Your task to perform on an android device: Open Chrome and go to the settings page Image 0: 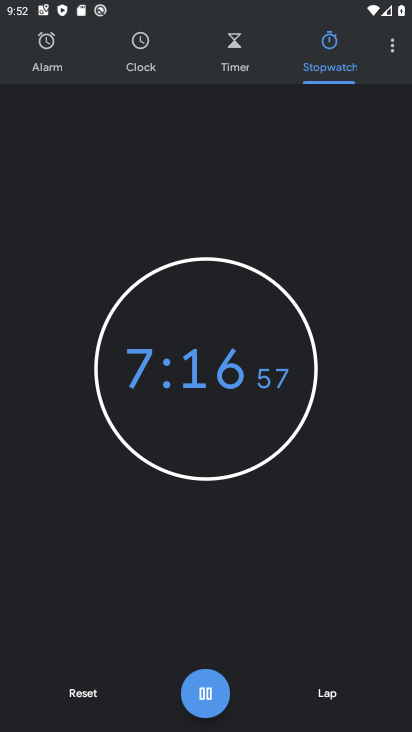
Step 0: press home button
Your task to perform on an android device: Open Chrome and go to the settings page Image 1: 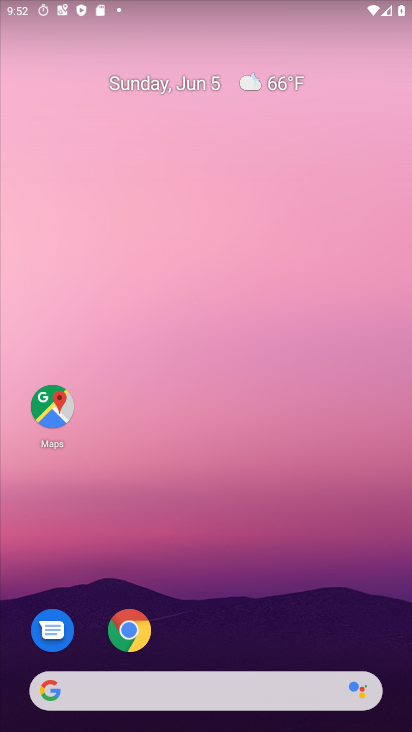
Step 1: drag from (213, 729) to (212, 80)
Your task to perform on an android device: Open Chrome and go to the settings page Image 2: 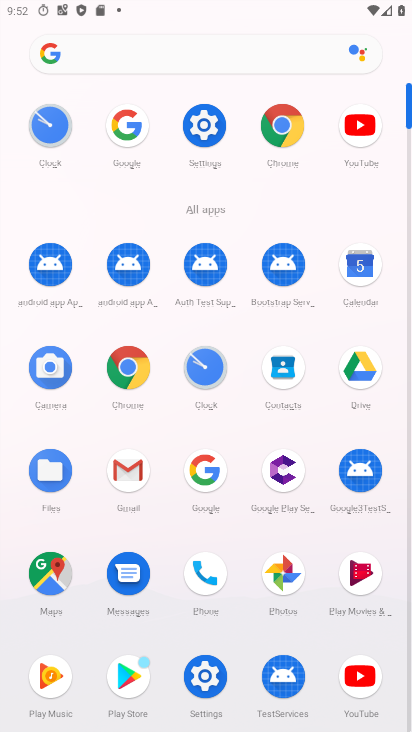
Step 2: click (128, 368)
Your task to perform on an android device: Open Chrome and go to the settings page Image 3: 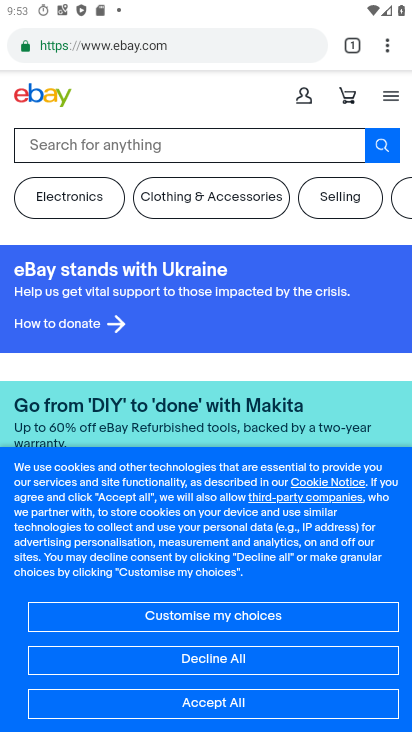
Step 3: click (388, 49)
Your task to perform on an android device: Open Chrome and go to the settings page Image 4: 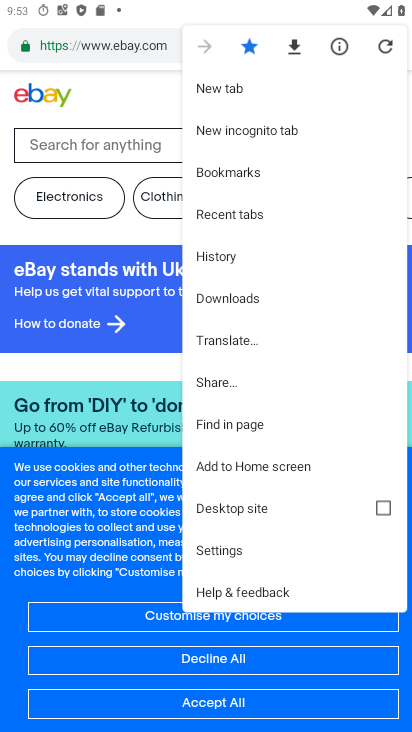
Step 4: click (226, 549)
Your task to perform on an android device: Open Chrome and go to the settings page Image 5: 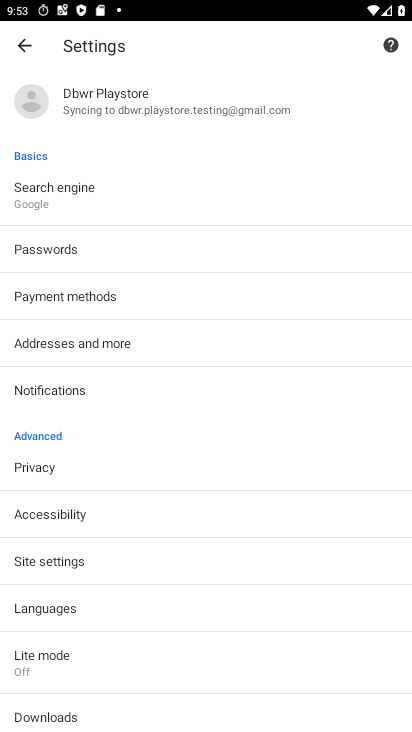
Step 5: task complete